Your task to perform on an android device: Go to privacy settings Image 0: 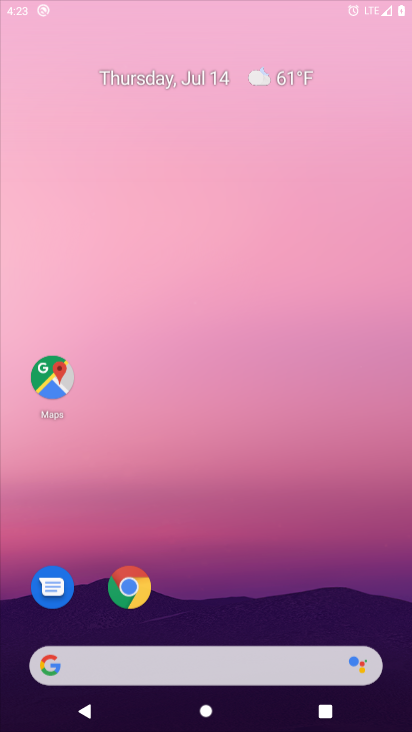
Step 0: press home button
Your task to perform on an android device: Go to privacy settings Image 1: 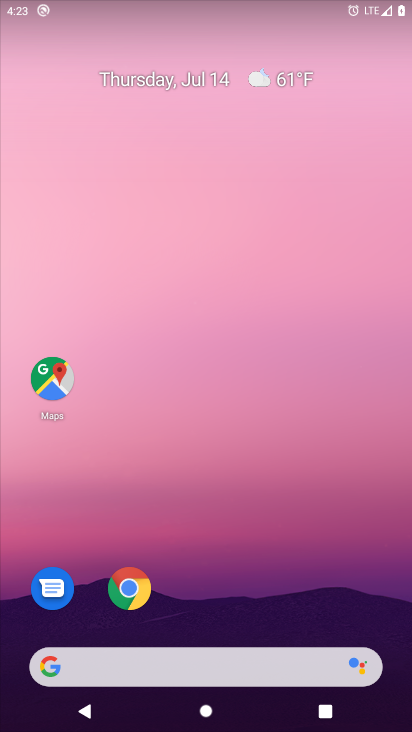
Step 1: drag from (248, 629) to (229, 2)
Your task to perform on an android device: Go to privacy settings Image 2: 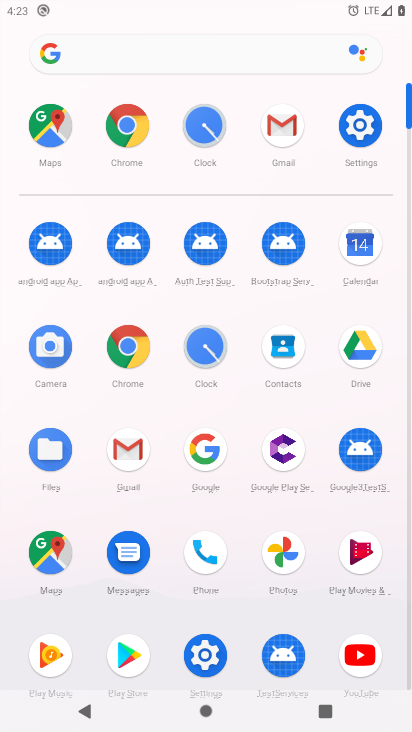
Step 2: click (356, 127)
Your task to perform on an android device: Go to privacy settings Image 3: 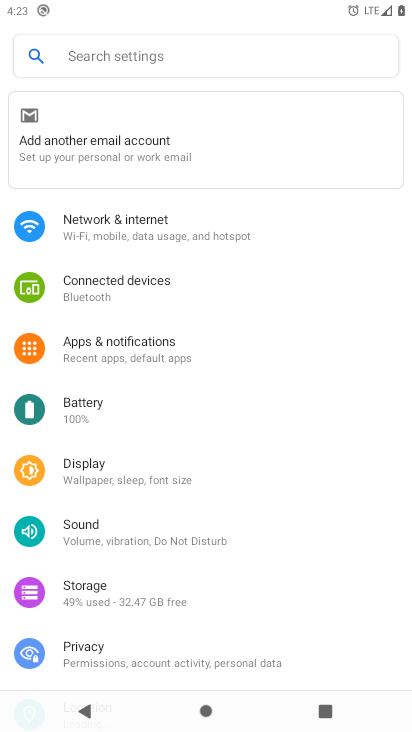
Step 3: click (86, 655)
Your task to perform on an android device: Go to privacy settings Image 4: 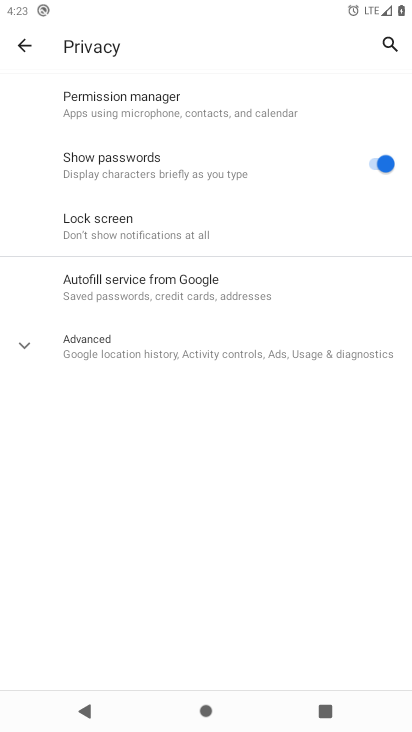
Step 4: task complete